Your task to perform on an android device: allow notifications from all sites in the chrome app Image 0: 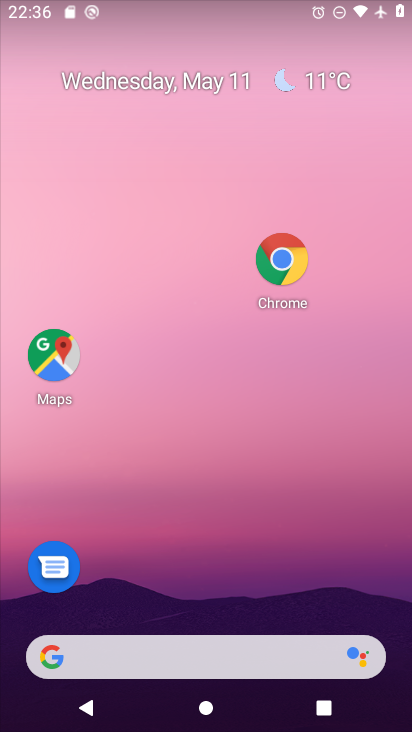
Step 0: drag from (193, 652) to (293, 166)
Your task to perform on an android device: allow notifications from all sites in the chrome app Image 1: 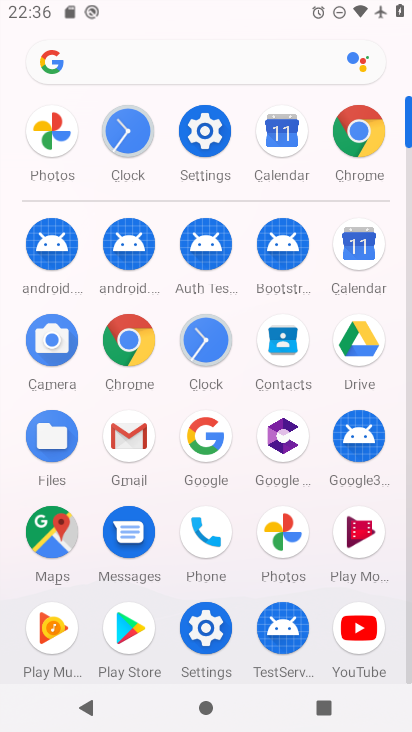
Step 1: click (362, 141)
Your task to perform on an android device: allow notifications from all sites in the chrome app Image 2: 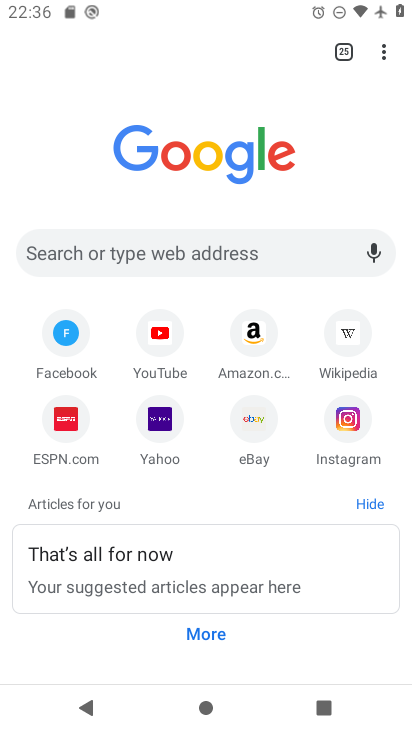
Step 2: drag from (384, 57) to (235, 438)
Your task to perform on an android device: allow notifications from all sites in the chrome app Image 3: 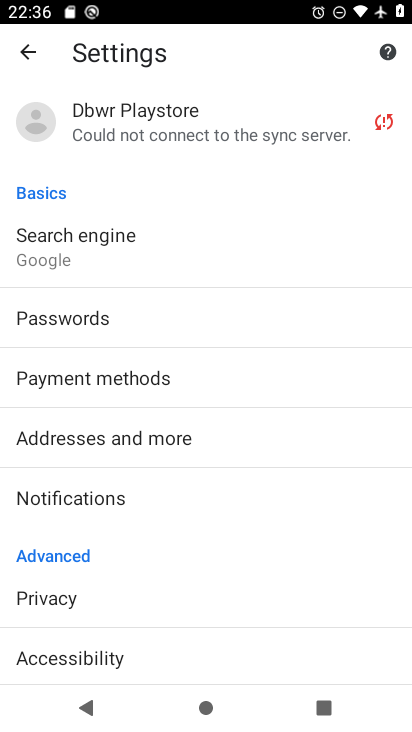
Step 3: drag from (146, 608) to (293, 309)
Your task to perform on an android device: allow notifications from all sites in the chrome app Image 4: 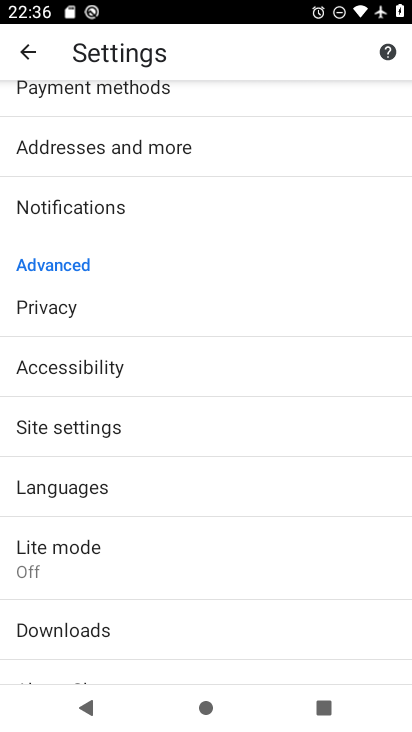
Step 4: click (133, 424)
Your task to perform on an android device: allow notifications from all sites in the chrome app Image 5: 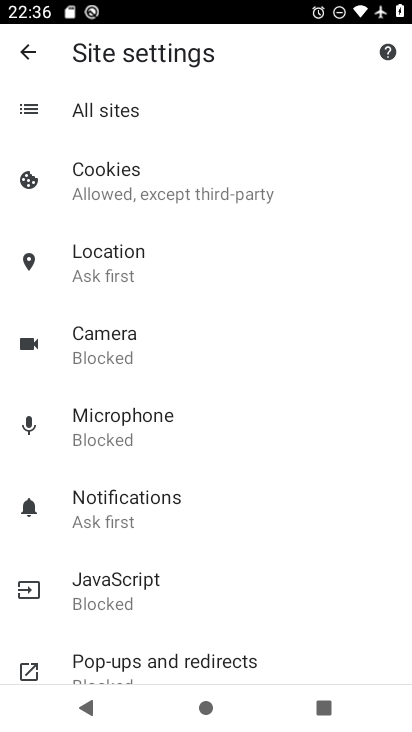
Step 5: click (127, 508)
Your task to perform on an android device: allow notifications from all sites in the chrome app Image 6: 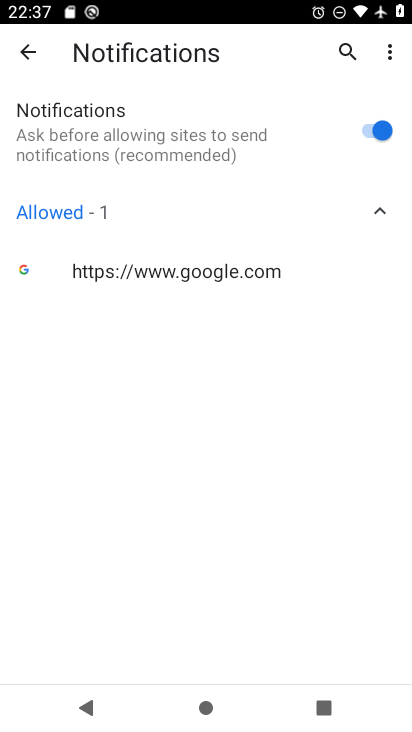
Step 6: task complete